Your task to perform on an android device: turn off picture-in-picture Image 0: 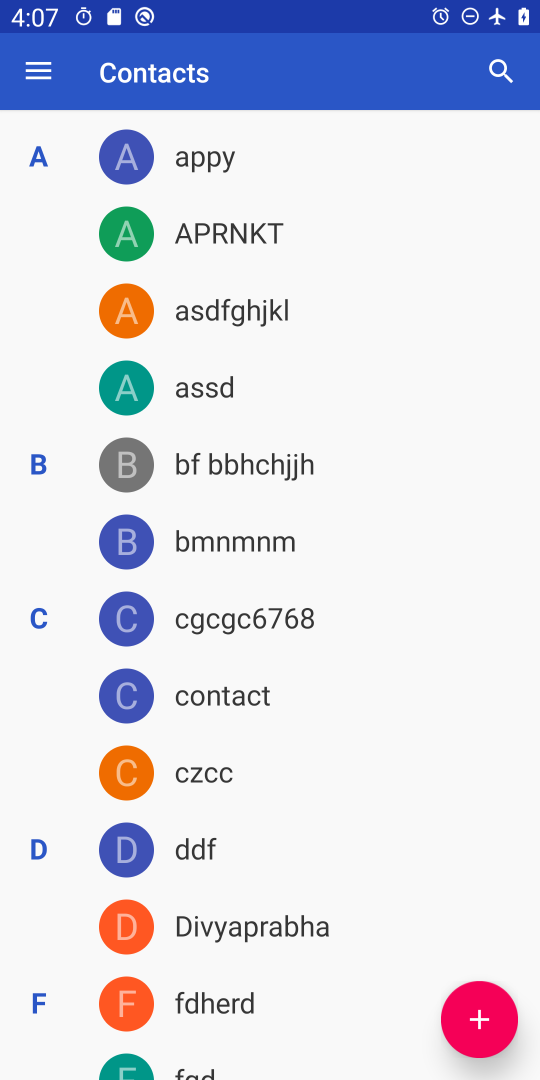
Step 0: press home button
Your task to perform on an android device: turn off picture-in-picture Image 1: 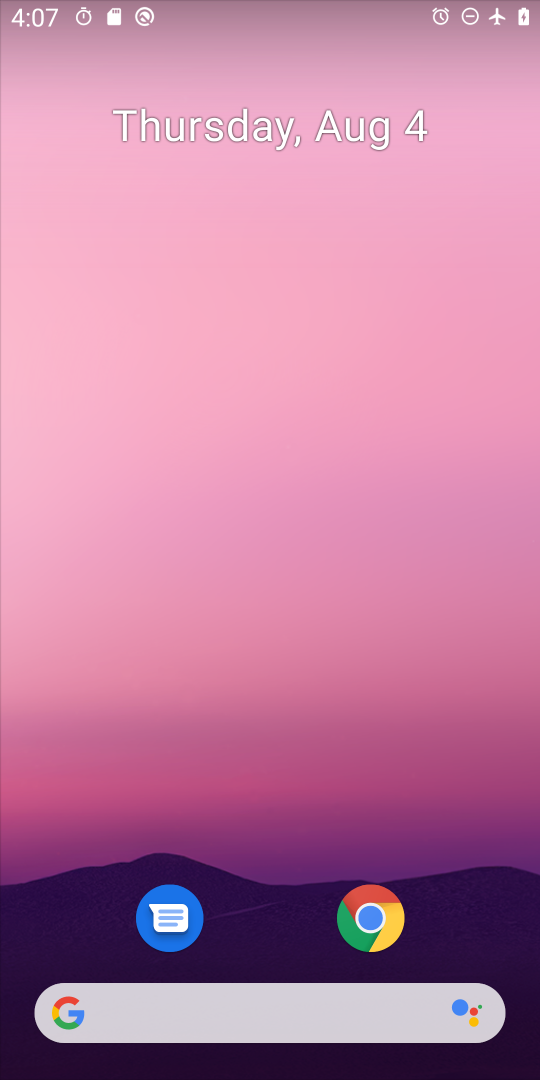
Step 1: click (357, 910)
Your task to perform on an android device: turn off picture-in-picture Image 2: 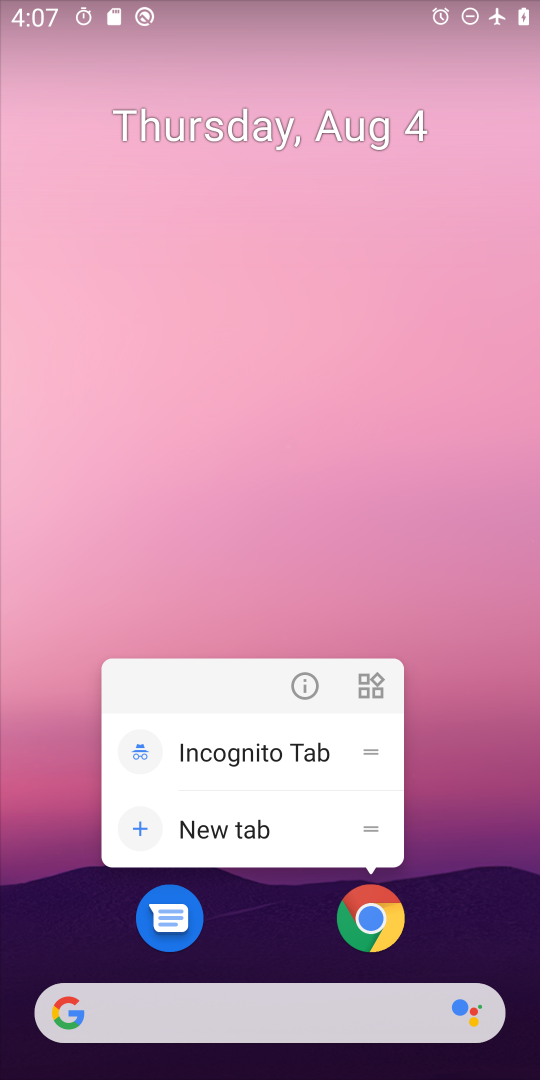
Step 2: click (312, 682)
Your task to perform on an android device: turn off picture-in-picture Image 3: 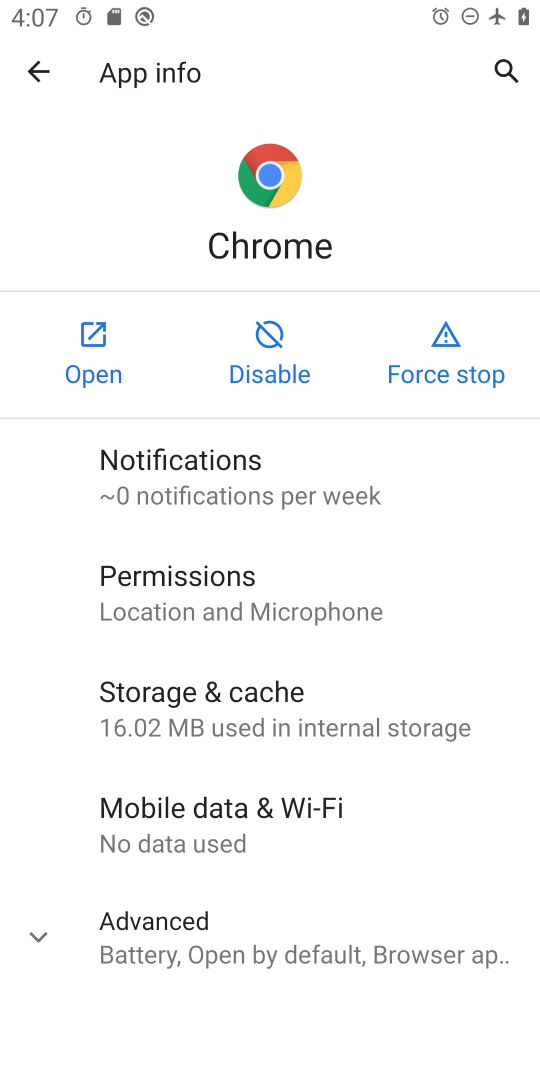
Step 3: click (228, 933)
Your task to perform on an android device: turn off picture-in-picture Image 4: 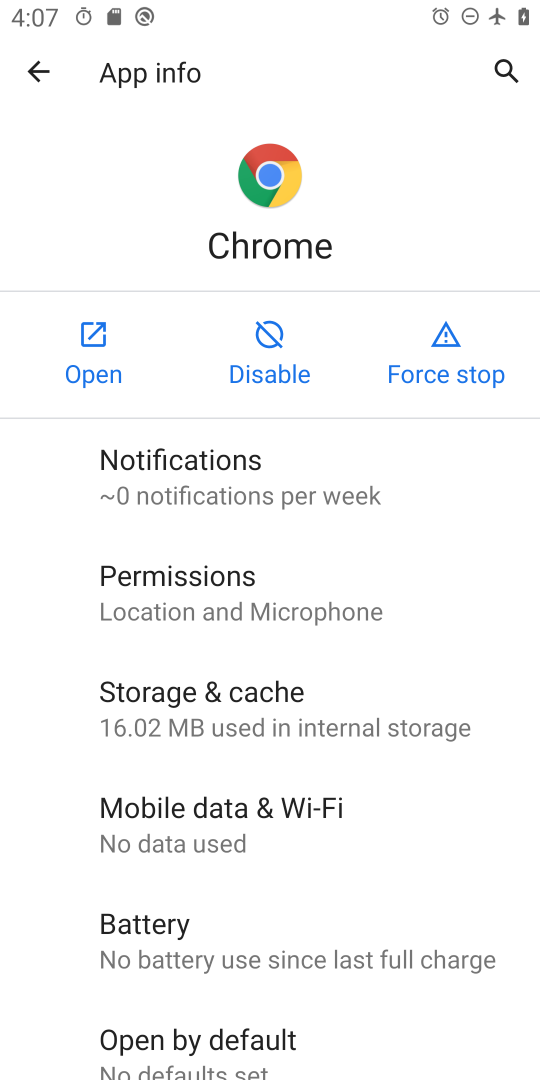
Step 4: drag from (179, 951) to (231, 506)
Your task to perform on an android device: turn off picture-in-picture Image 5: 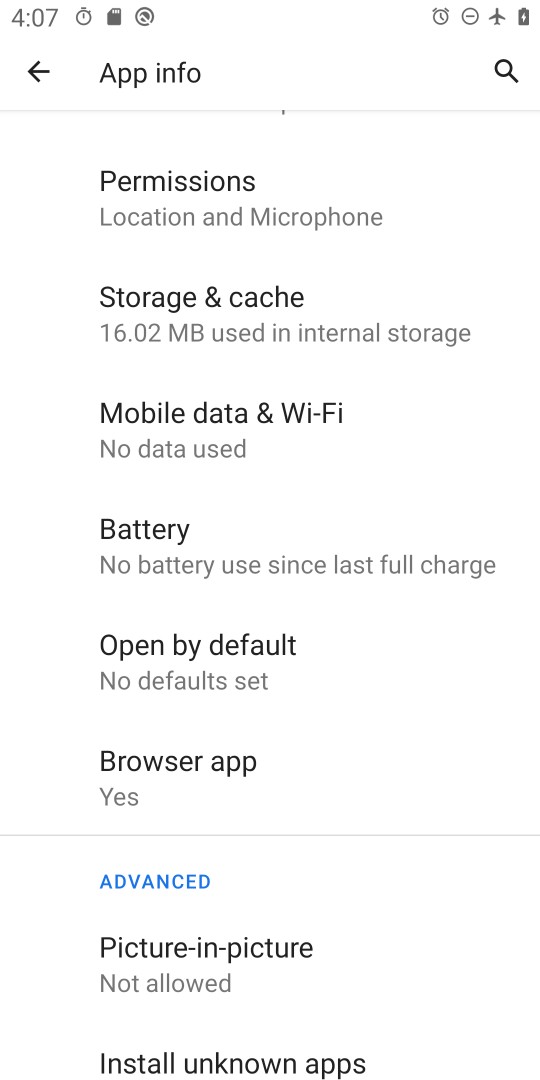
Step 5: click (247, 946)
Your task to perform on an android device: turn off picture-in-picture Image 6: 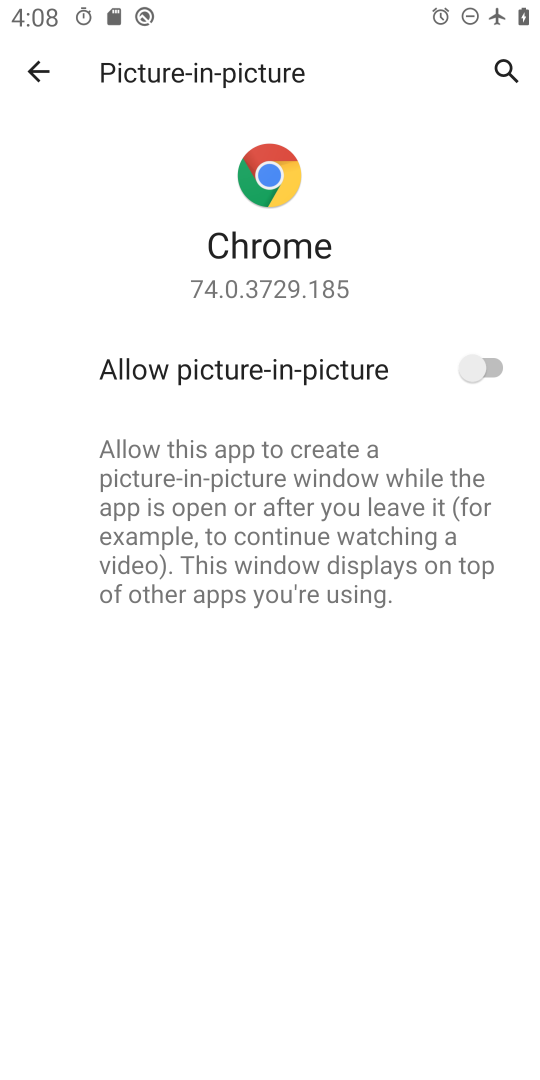
Step 6: task complete